Your task to perform on an android device: Open the web browser Image 0: 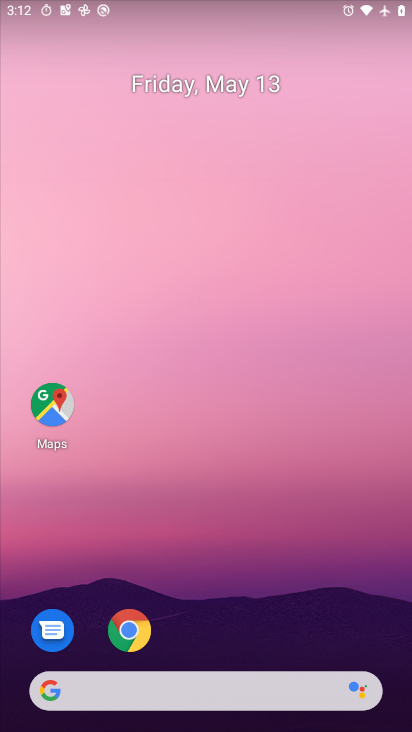
Step 0: drag from (207, 615) to (300, 178)
Your task to perform on an android device: Open the web browser Image 1: 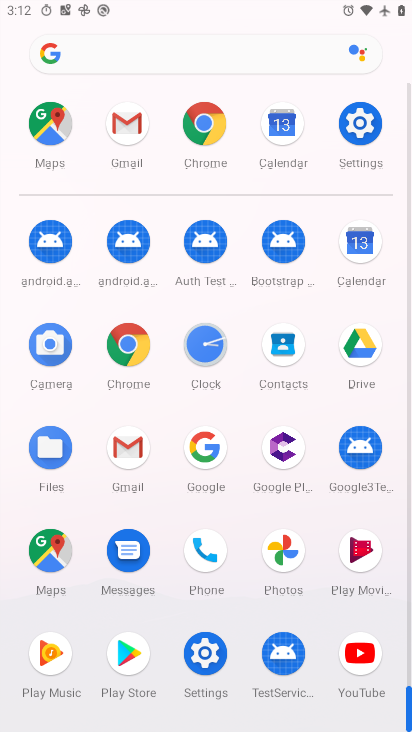
Step 1: click (128, 366)
Your task to perform on an android device: Open the web browser Image 2: 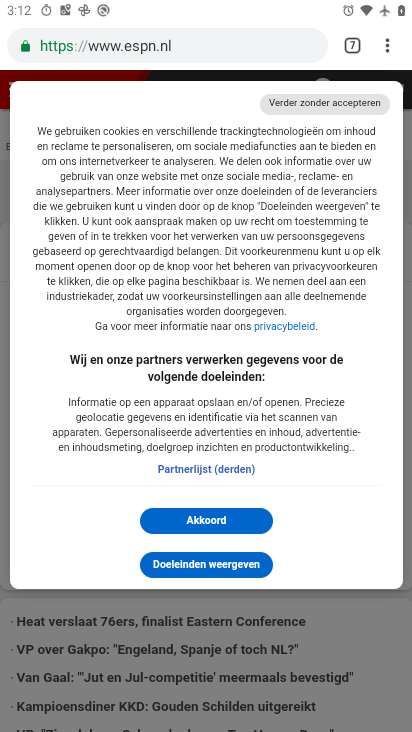
Step 2: task complete